Your task to perform on an android device: Open CNN.com Image 0: 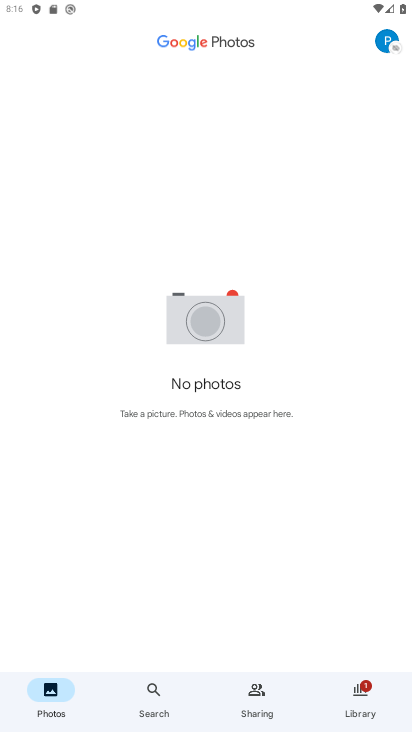
Step 0: press back button
Your task to perform on an android device: Open CNN.com Image 1: 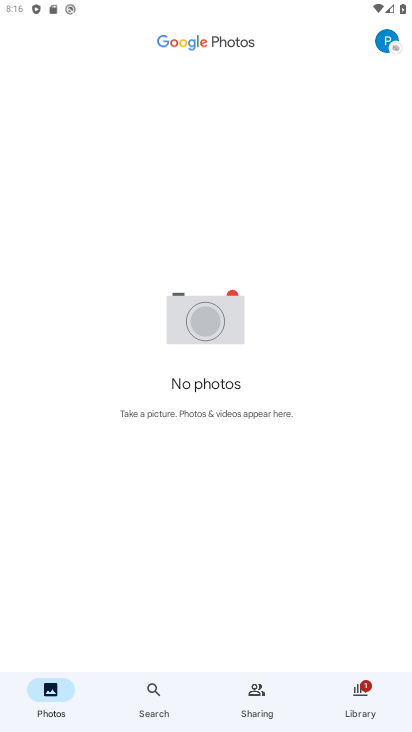
Step 1: press back button
Your task to perform on an android device: Open CNN.com Image 2: 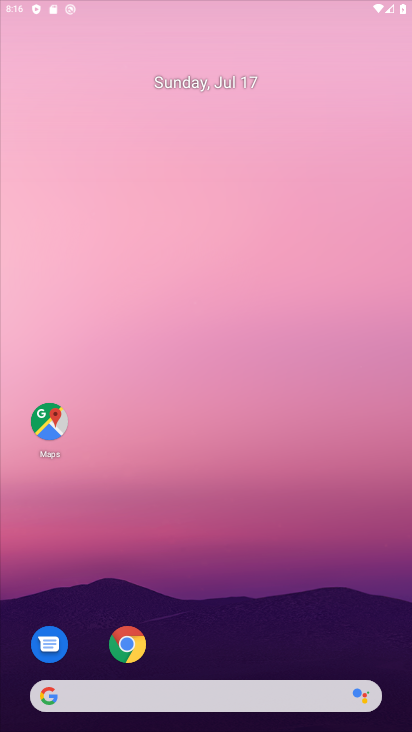
Step 2: press back button
Your task to perform on an android device: Open CNN.com Image 3: 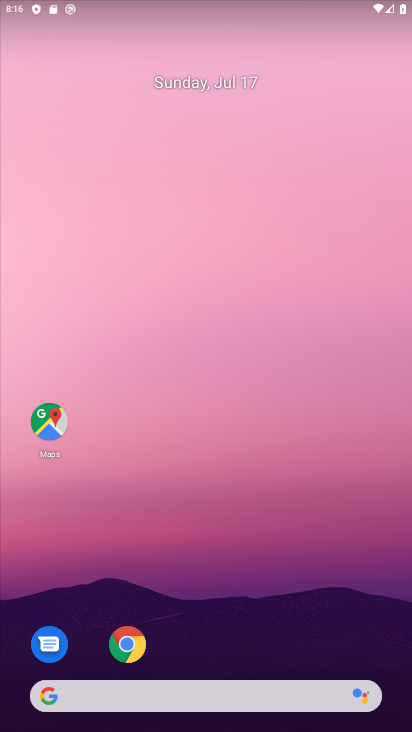
Step 3: press home button
Your task to perform on an android device: Open CNN.com Image 4: 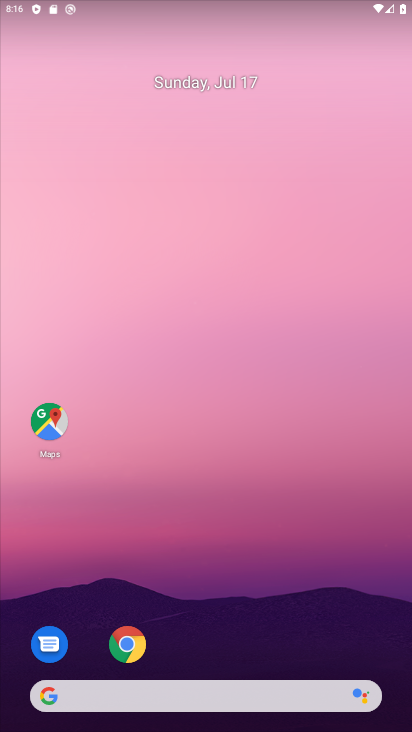
Step 4: press home button
Your task to perform on an android device: Open CNN.com Image 5: 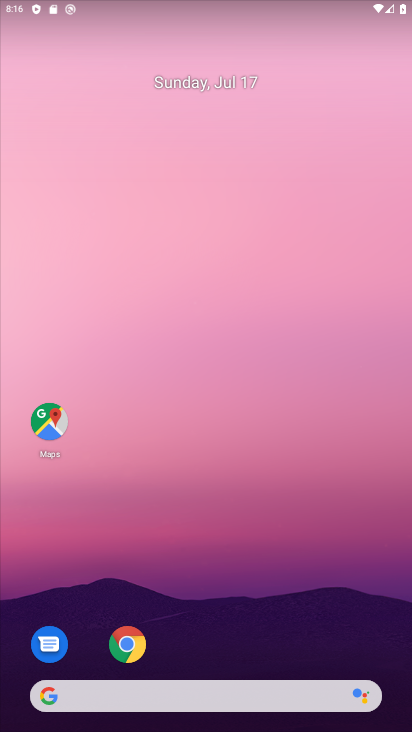
Step 5: click (139, 37)
Your task to perform on an android device: Open CNN.com Image 6: 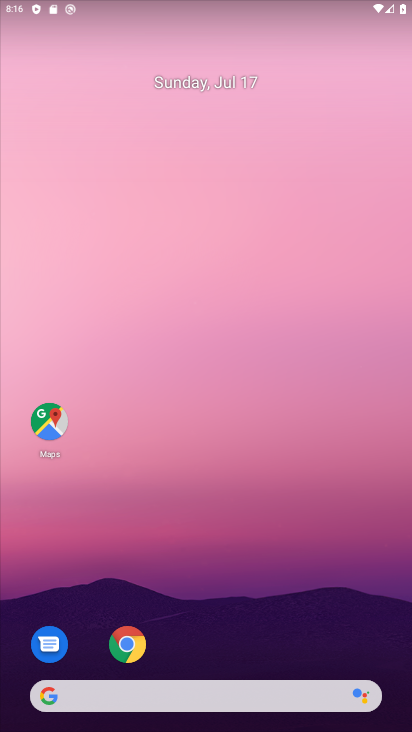
Step 6: drag from (186, 566) to (91, 29)
Your task to perform on an android device: Open CNN.com Image 7: 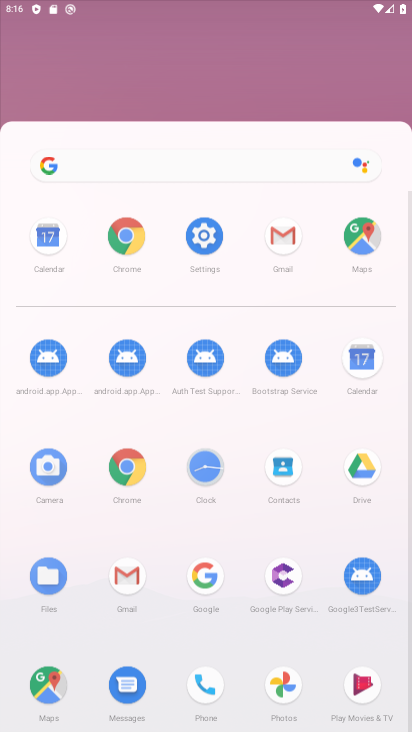
Step 7: drag from (223, 613) to (212, 42)
Your task to perform on an android device: Open CNN.com Image 8: 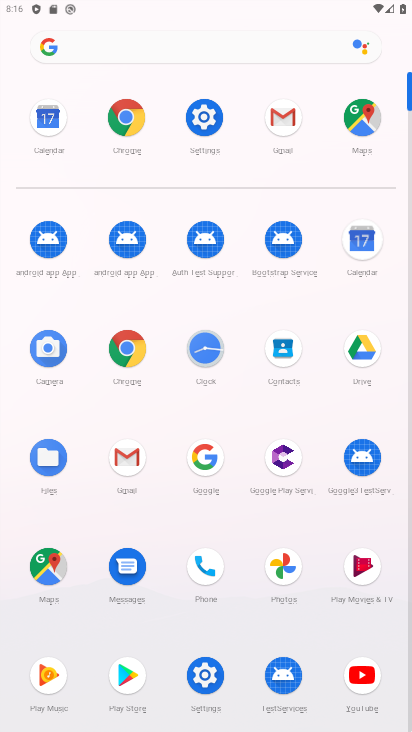
Step 8: click (192, 128)
Your task to perform on an android device: Open CNN.com Image 9: 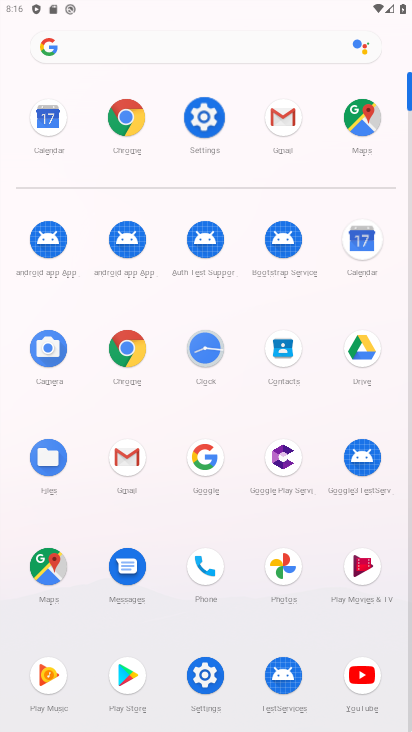
Step 9: click (201, 122)
Your task to perform on an android device: Open CNN.com Image 10: 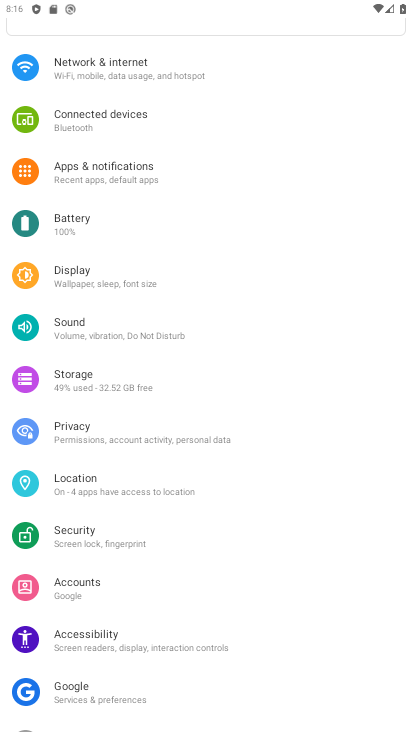
Step 10: click (202, 122)
Your task to perform on an android device: Open CNN.com Image 11: 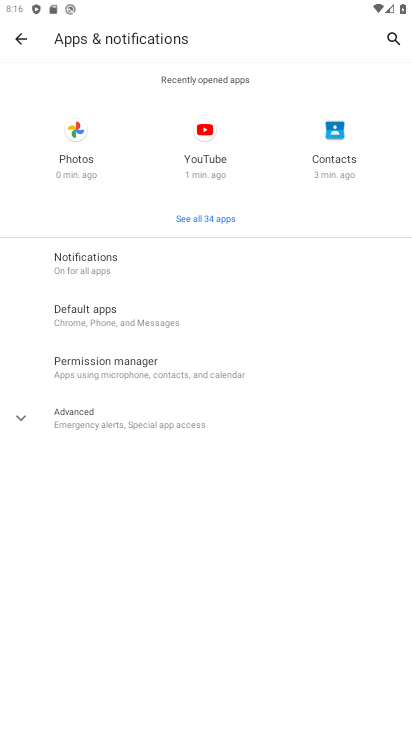
Step 11: click (18, 36)
Your task to perform on an android device: Open CNN.com Image 12: 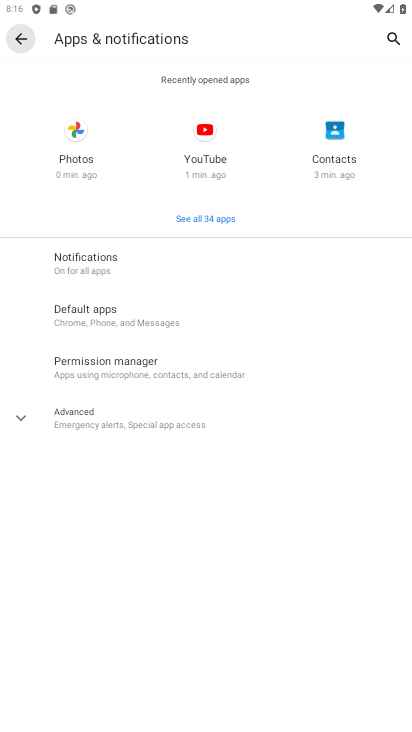
Step 12: click (17, 38)
Your task to perform on an android device: Open CNN.com Image 13: 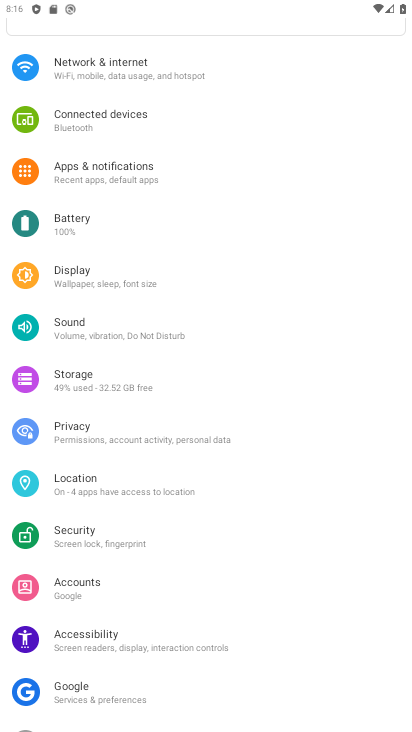
Step 13: drag from (112, 102) to (41, 412)
Your task to perform on an android device: Open CNN.com Image 14: 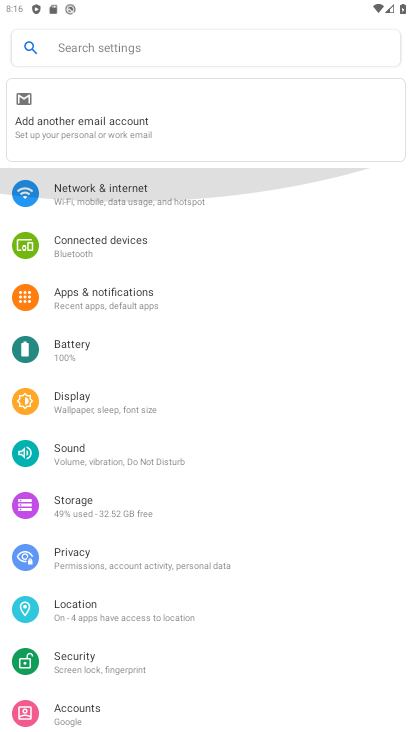
Step 14: drag from (133, 120) to (121, 523)
Your task to perform on an android device: Open CNN.com Image 15: 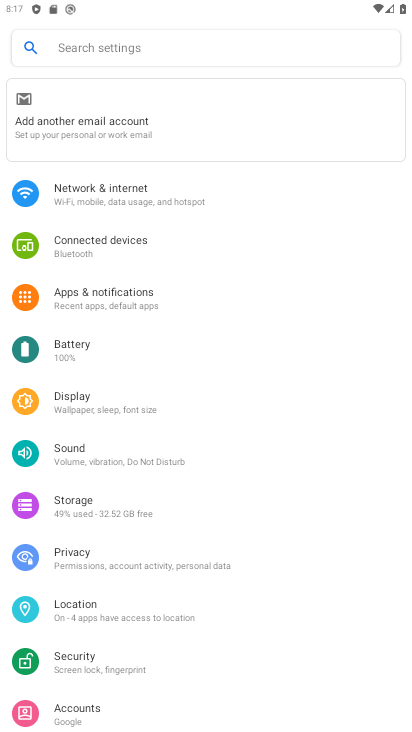
Step 15: press home button
Your task to perform on an android device: Open CNN.com Image 16: 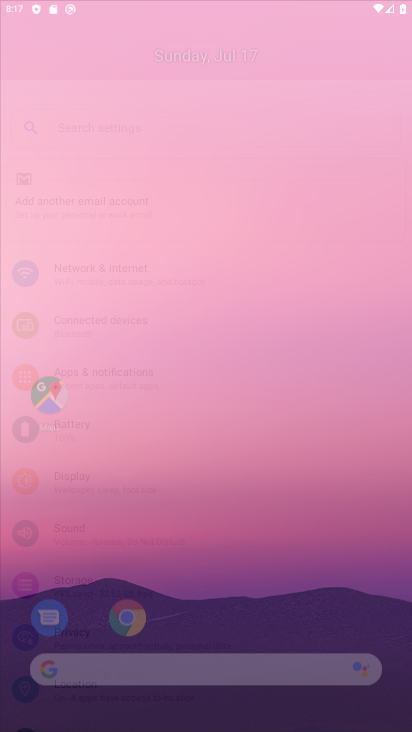
Step 16: press home button
Your task to perform on an android device: Open CNN.com Image 17: 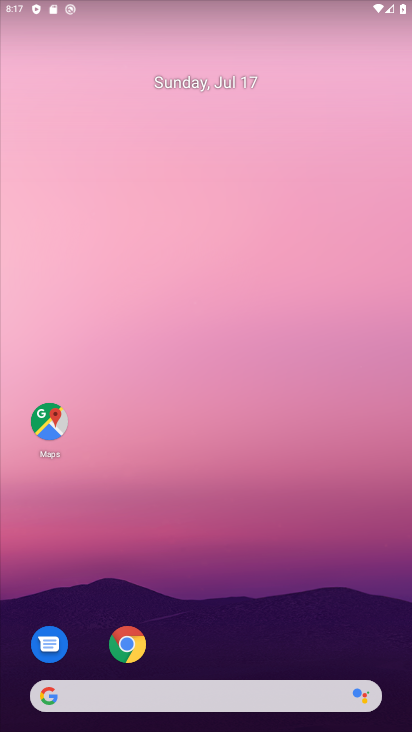
Step 17: drag from (196, 550) to (109, 150)
Your task to perform on an android device: Open CNN.com Image 18: 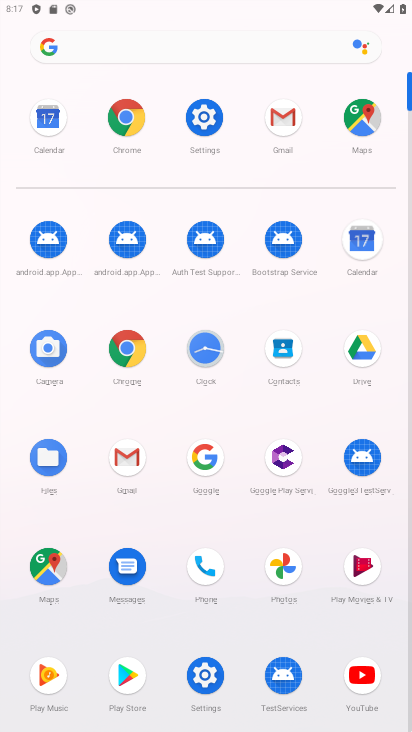
Step 18: click (127, 131)
Your task to perform on an android device: Open CNN.com Image 19: 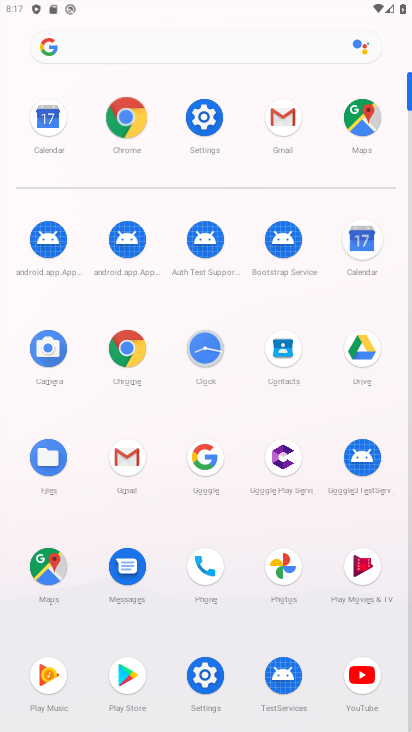
Step 19: click (127, 131)
Your task to perform on an android device: Open CNN.com Image 20: 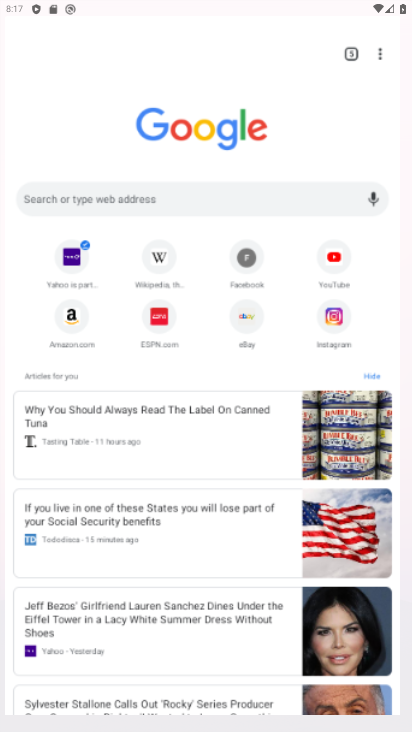
Step 20: click (128, 133)
Your task to perform on an android device: Open CNN.com Image 21: 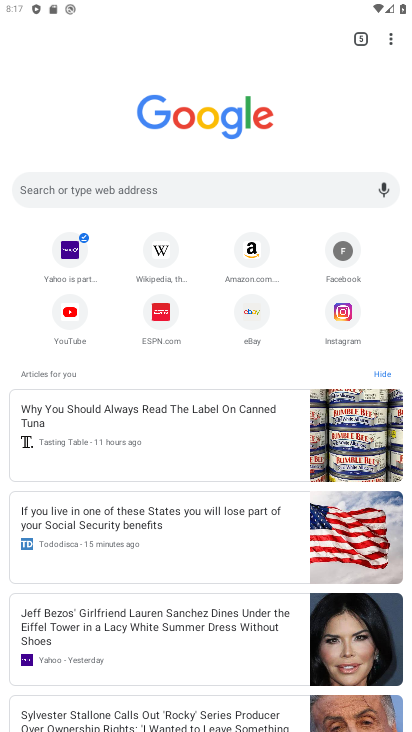
Step 21: click (64, 187)
Your task to perform on an android device: Open CNN.com Image 22: 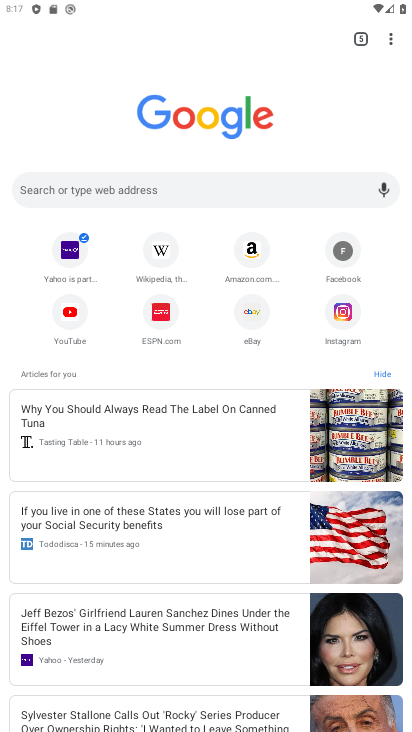
Step 22: click (64, 187)
Your task to perform on an android device: Open CNN.com Image 23: 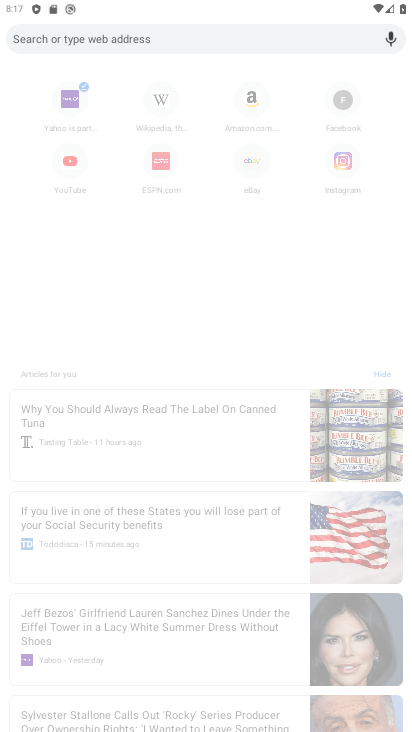
Step 23: click (64, 187)
Your task to perform on an android device: Open CNN.com Image 24: 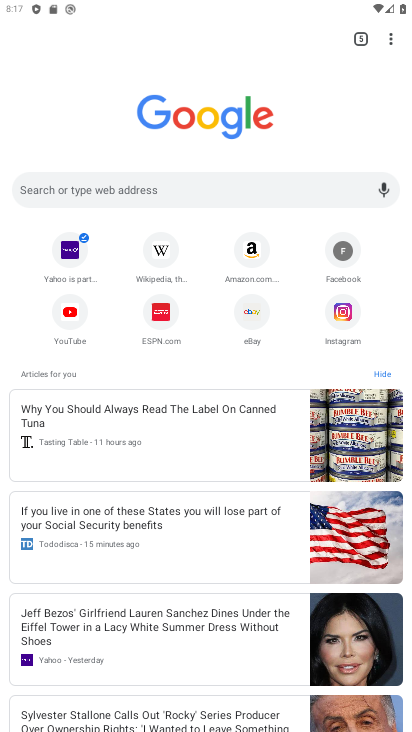
Step 24: click (48, 188)
Your task to perform on an android device: Open CNN.com Image 25: 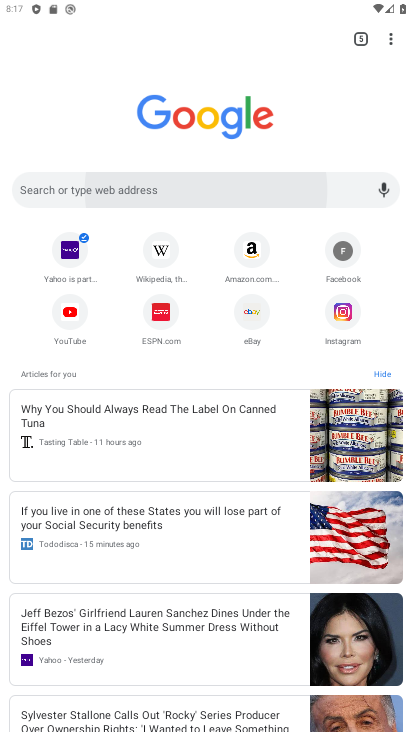
Step 25: click (48, 188)
Your task to perform on an android device: Open CNN.com Image 26: 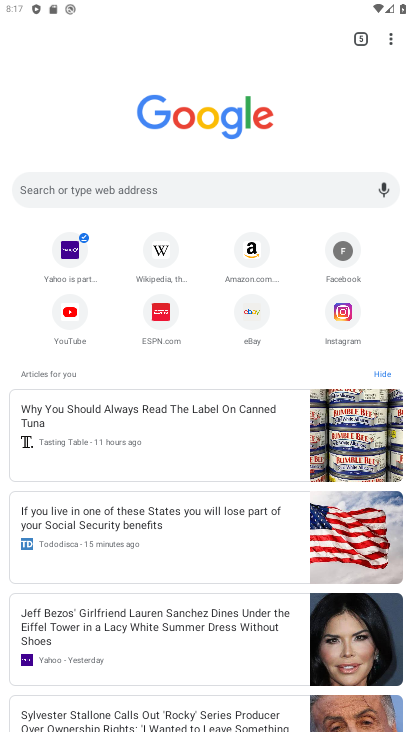
Step 26: type "www.CNN.com"
Your task to perform on an android device: Open CNN.com Image 27: 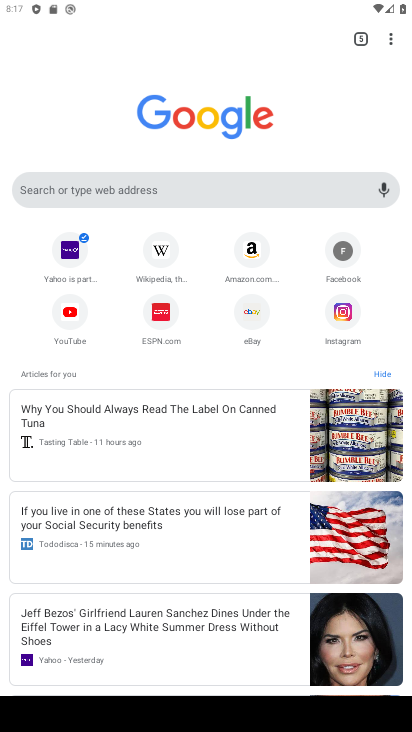
Step 27: click (107, 186)
Your task to perform on an android device: Open CNN.com Image 28: 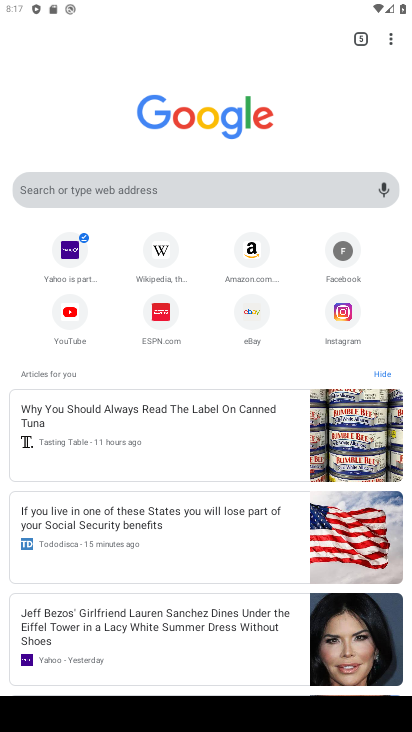
Step 28: click (107, 186)
Your task to perform on an android device: Open CNN.com Image 29: 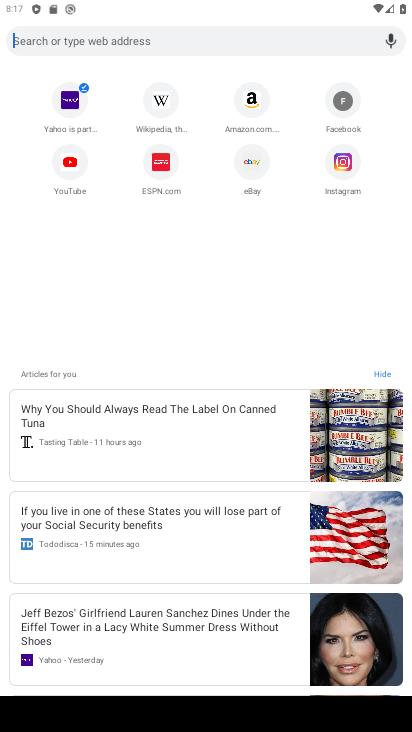
Step 29: click (107, 186)
Your task to perform on an android device: Open CNN.com Image 30: 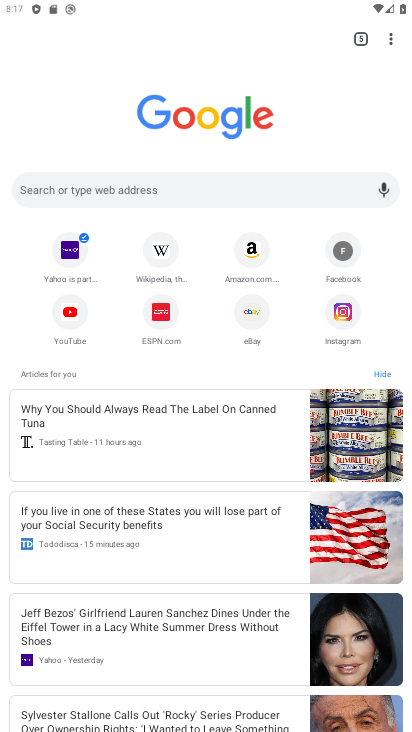
Step 30: click (47, 193)
Your task to perform on an android device: Open CNN.com Image 31: 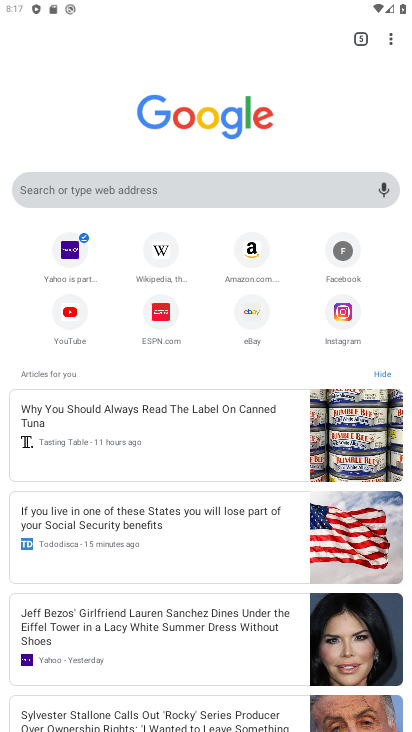
Step 31: click (47, 193)
Your task to perform on an android device: Open CNN.com Image 32: 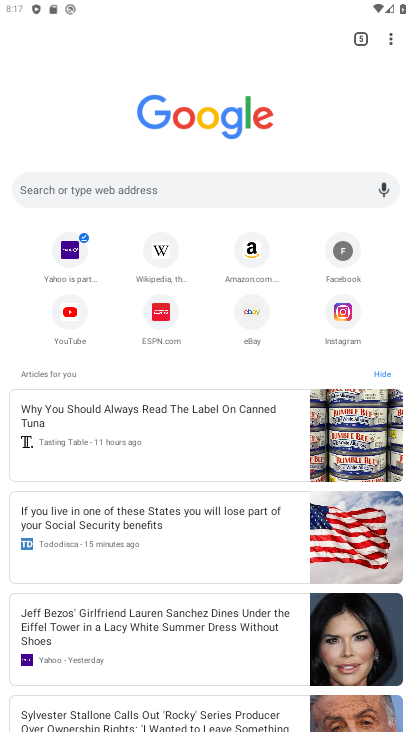
Step 32: click (104, 184)
Your task to perform on an android device: Open CNN.com Image 33: 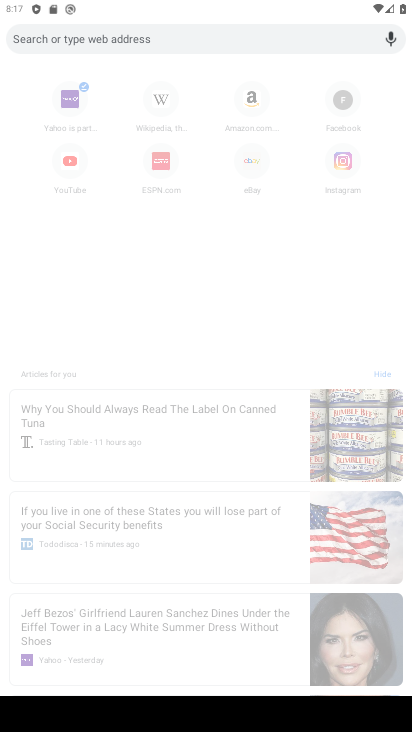
Step 33: type "CNN>com"
Your task to perform on an android device: Open CNN.com Image 34: 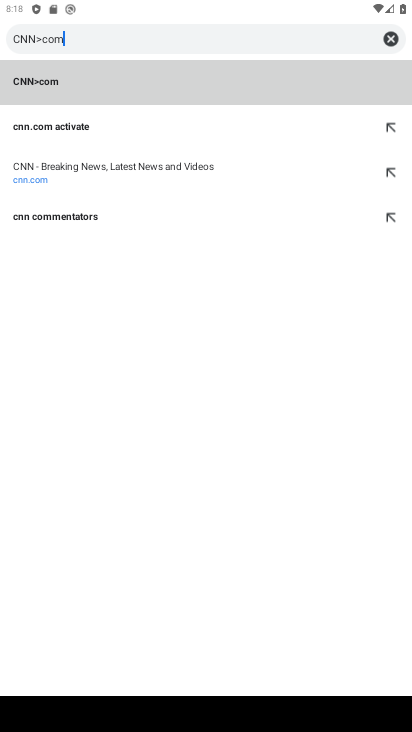
Step 34: click (53, 154)
Your task to perform on an android device: Open CNN.com Image 35: 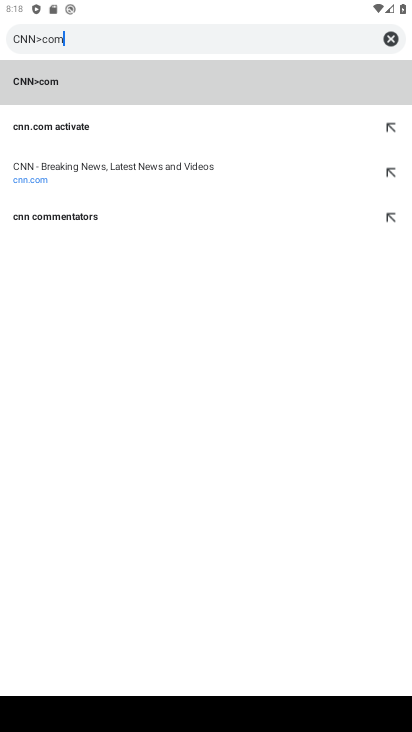
Step 35: click (53, 154)
Your task to perform on an android device: Open CNN.com Image 36: 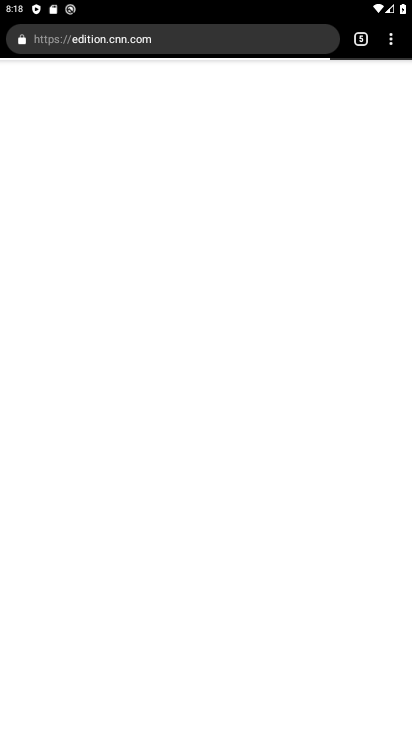
Step 36: task complete